Your task to perform on an android device: manage bookmarks in the chrome app Image 0: 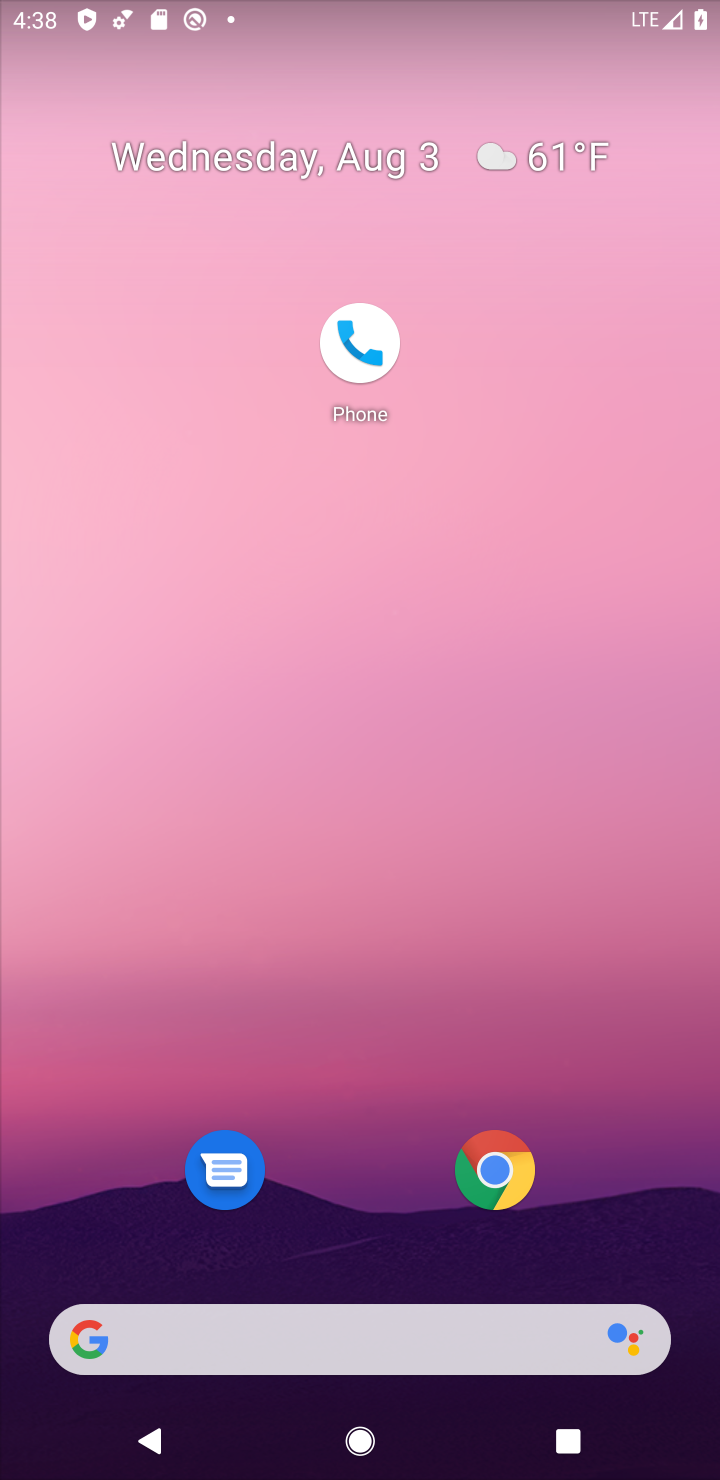
Step 0: click (491, 1186)
Your task to perform on an android device: manage bookmarks in the chrome app Image 1: 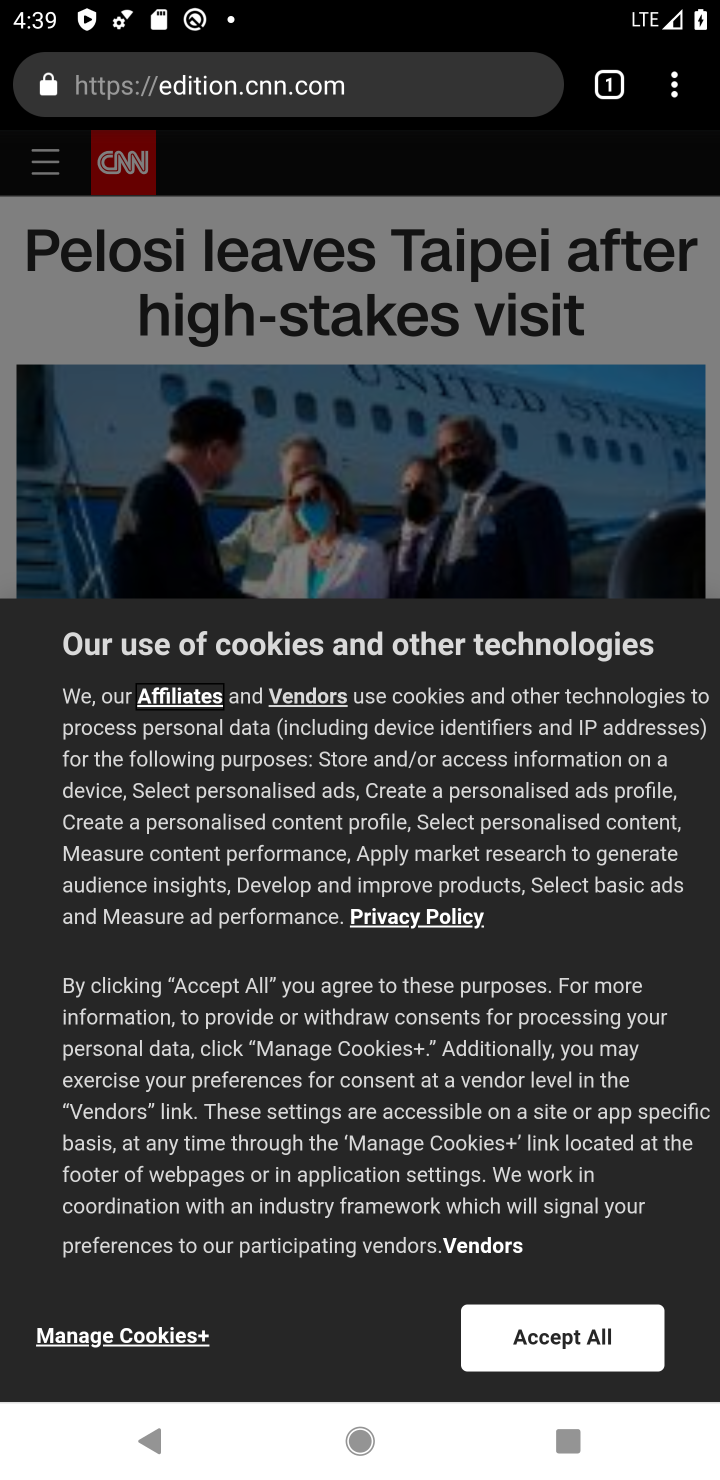
Step 1: click (676, 93)
Your task to perform on an android device: manage bookmarks in the chrome app Image 2: 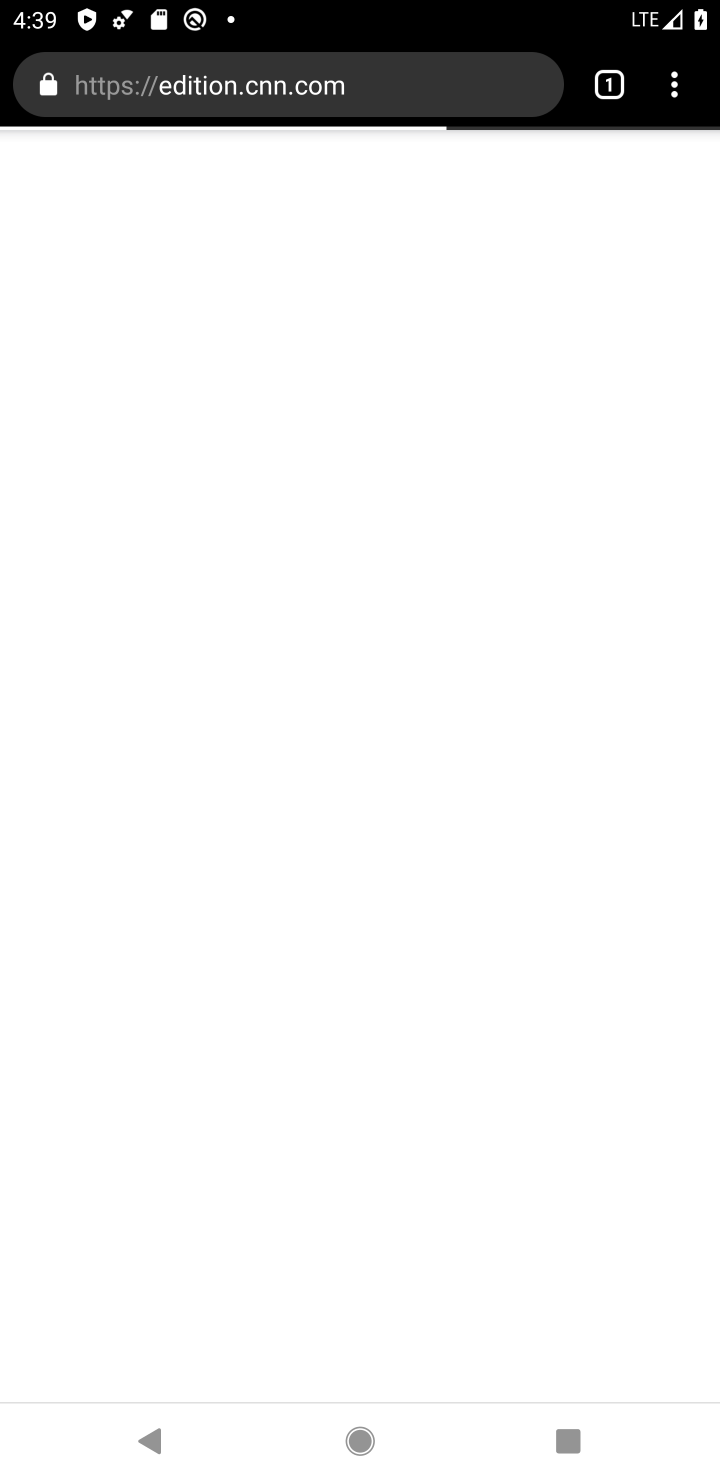
Step 2: click (670, 82)
Your task to perform on an android device: manage bookmarks in the chrome app Image 3: 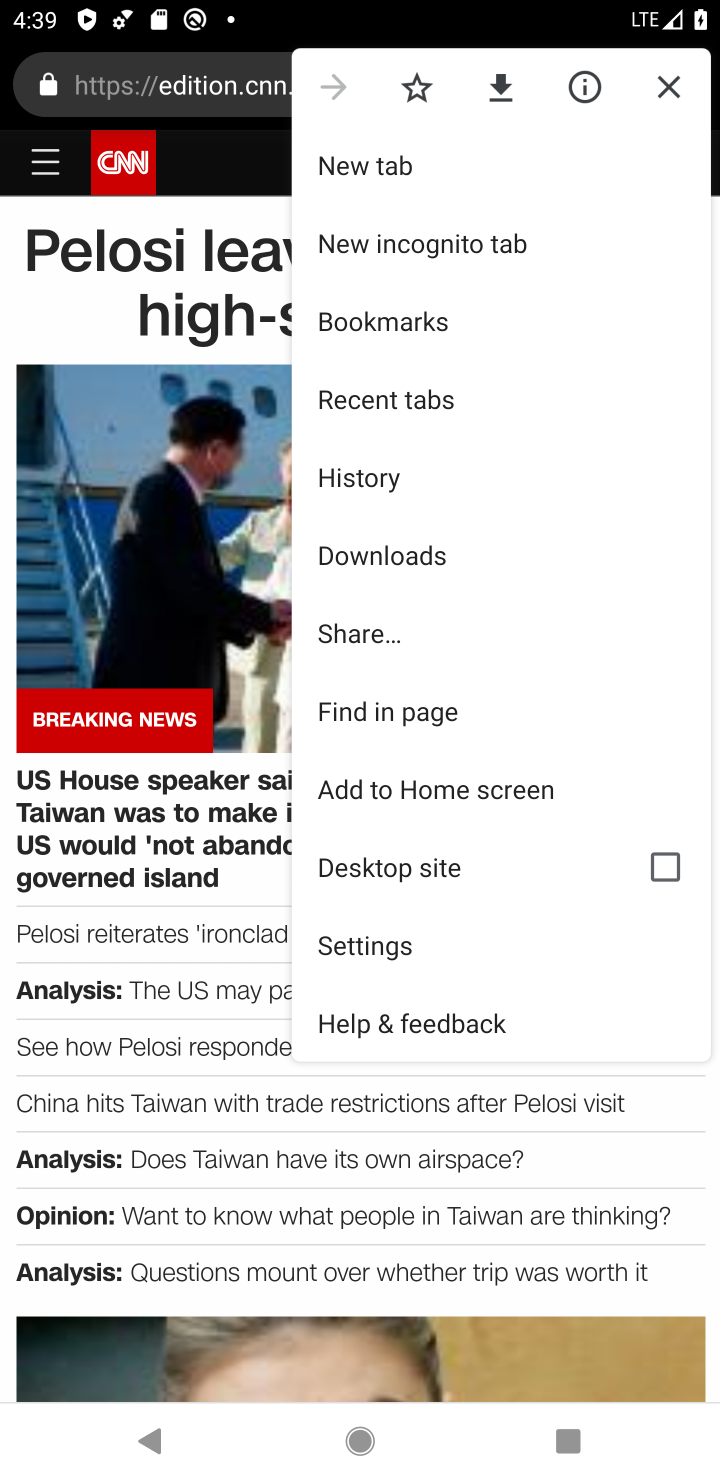
Step 3: click (402, 317)
Your task to perform on an android device: manage bookmarks in the chrome app Image 4: 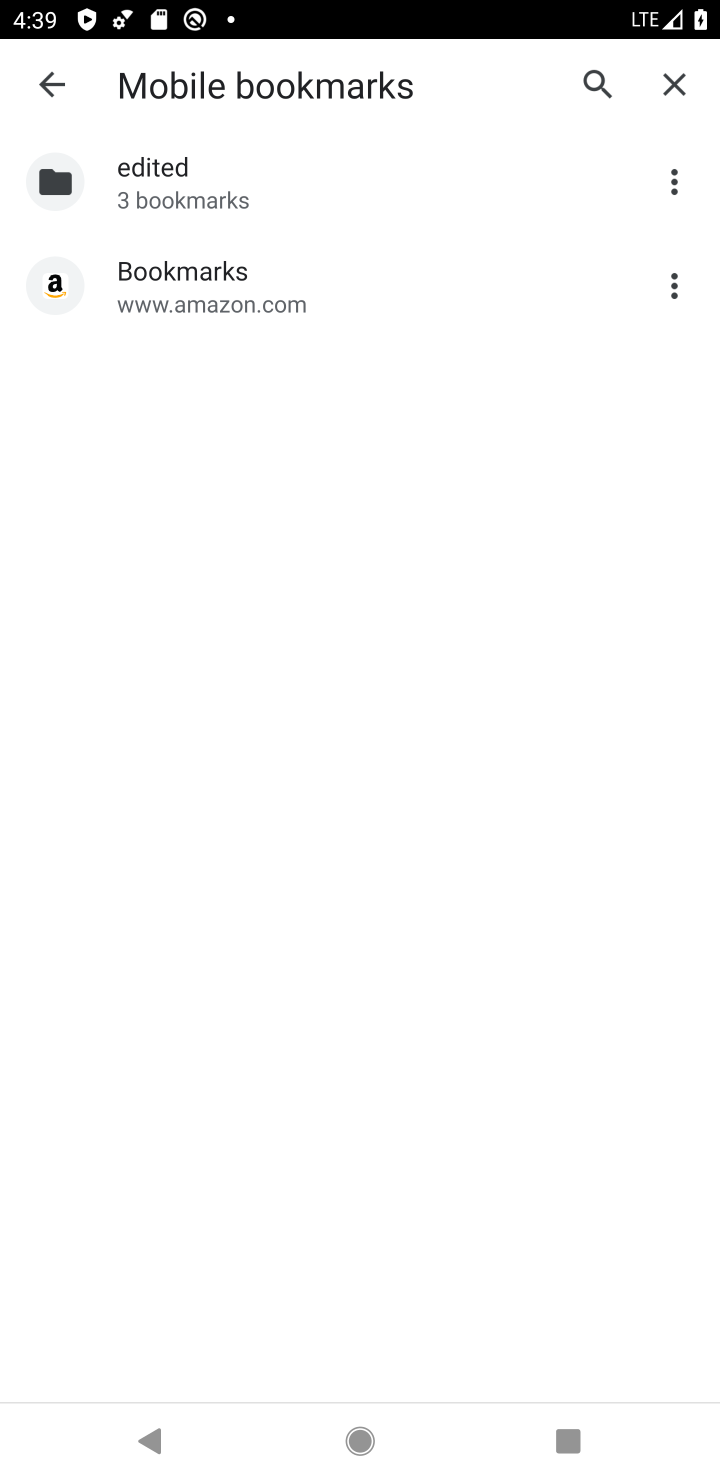
Step 4: click (678, 271)
Your task to perform on an android device: manage bookmarks in the chrome app Image 5: 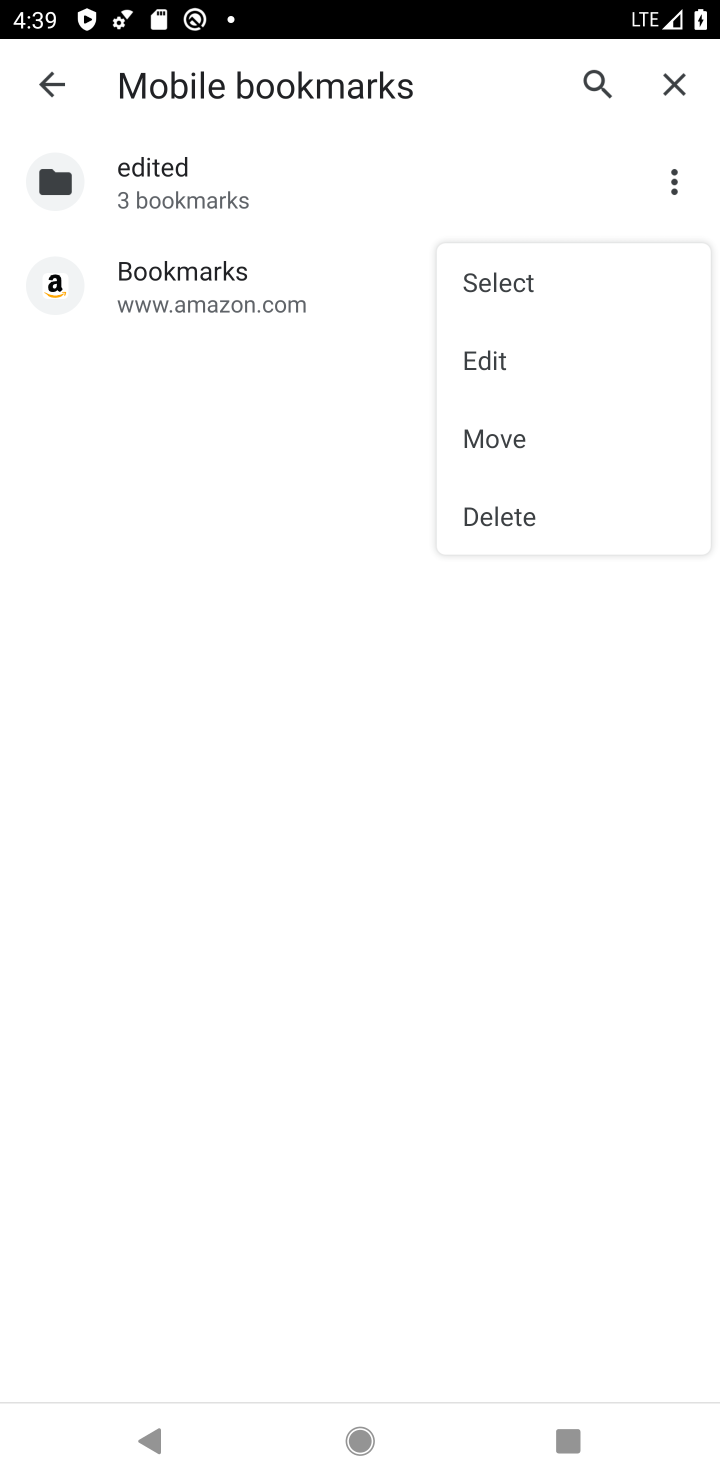
Step 5: click (479, 498)
Your task to perform on an android device: manage bookmarks in the chrome app Image 6: 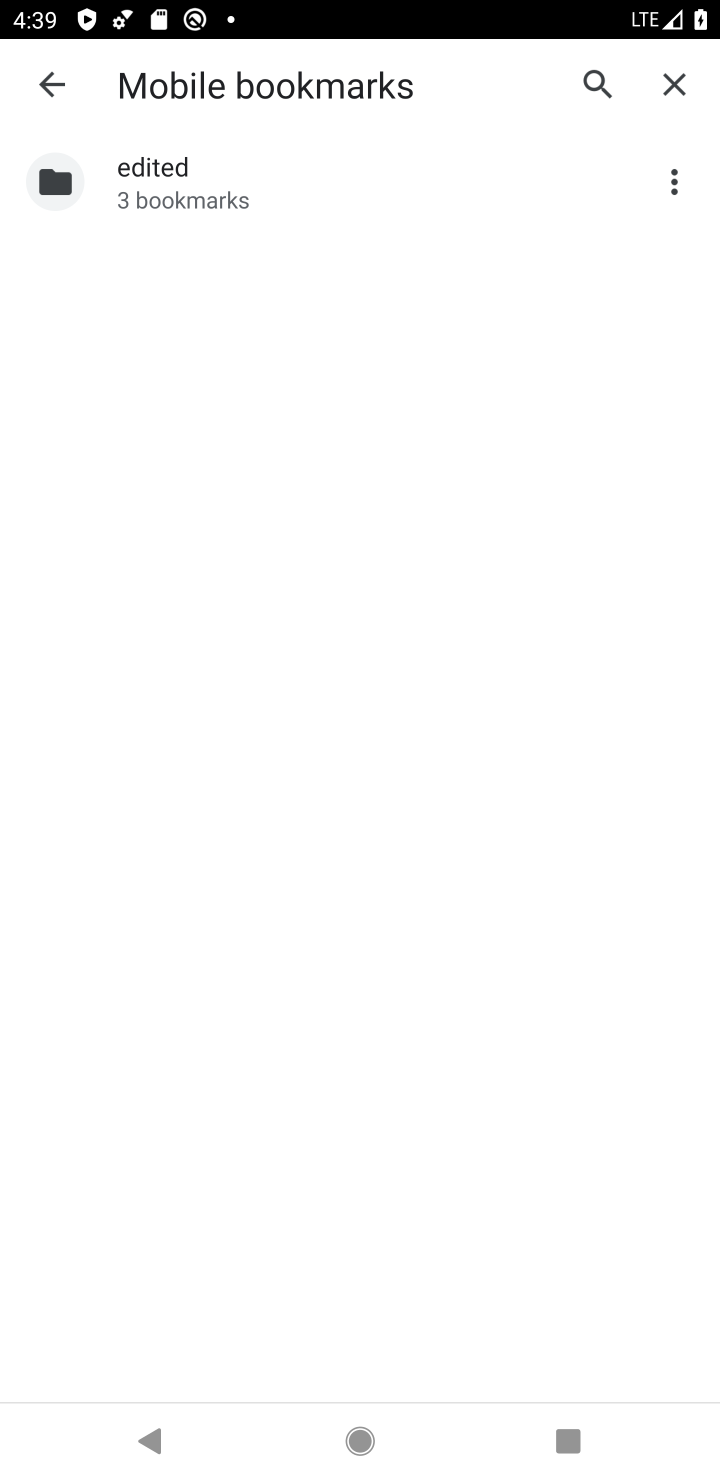
Step 6: task complete